Your task to perform on an android device: Show me popular videos on Youtube Image 0: 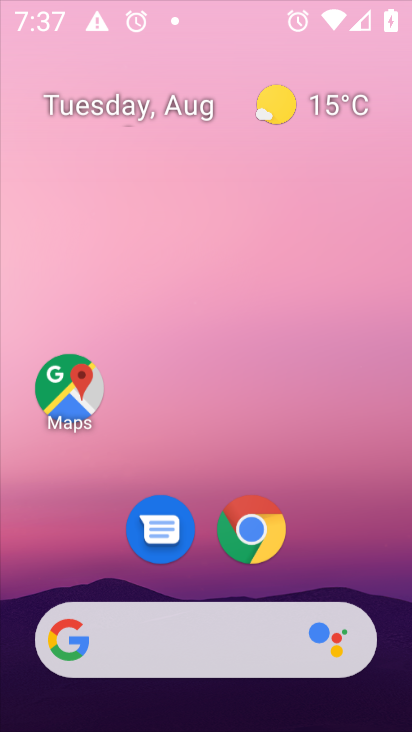
Step 0: press home button
Your task to perform on an android device: Show me popular videos on Youtube Image 1: 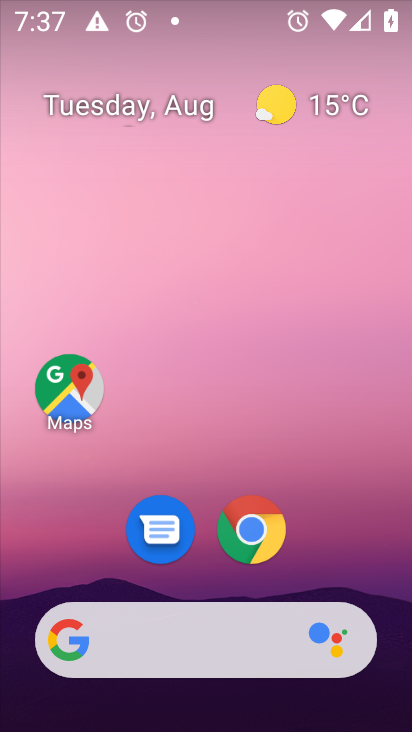
Step 1: drag from (208, 555) to (209, 97)
Your task to perform on an android device: Show me popular videos on Youtube Image 2: 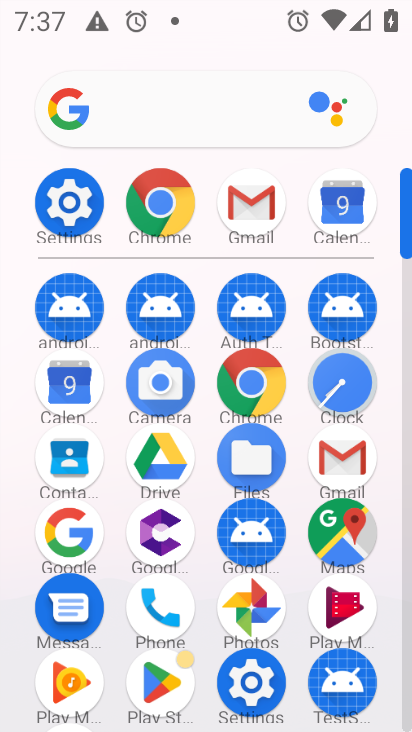
Step 2: drag from (383, 598) to (405, 79)
Your task to perform on an android device: Show me popular videos on Youtube Image 3: 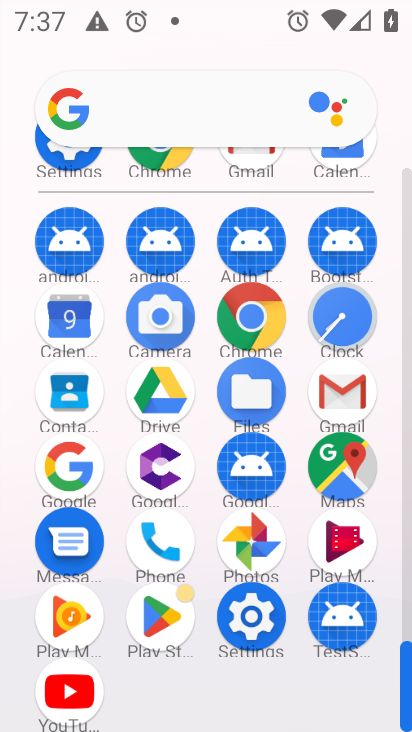
Step 3: click (78, 659)
Your task to perform on an android device: Show me popular videos on Youtube Image 4: 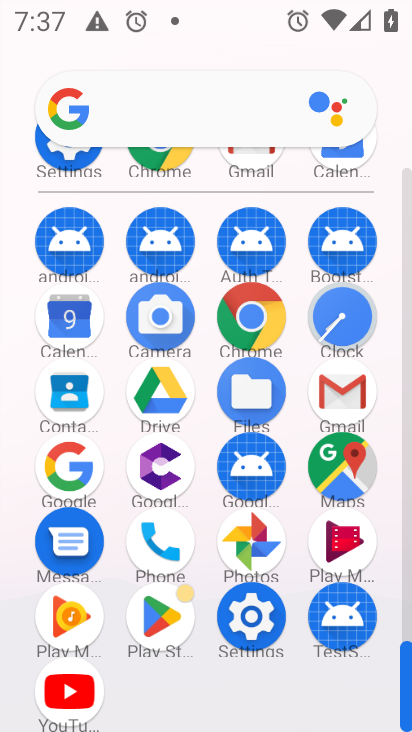
Step 4: click (62, 685)
Your task to perform on an android device: Show me popular videos on Youtube Image 5: 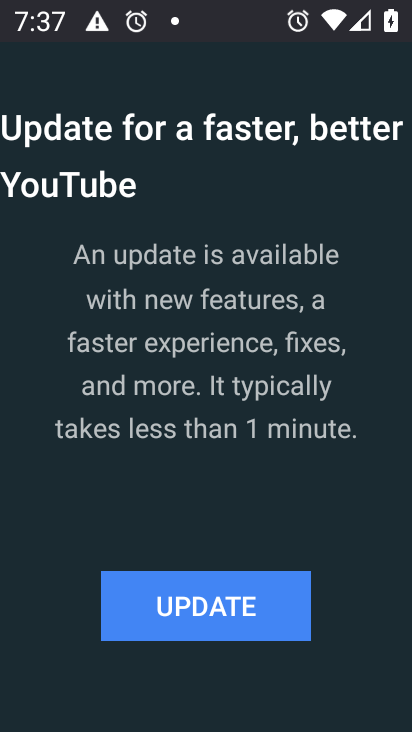
Step 5: click (205, 607)
Your task to perform on an android device: Show me popular videos on Youtube Image 6: 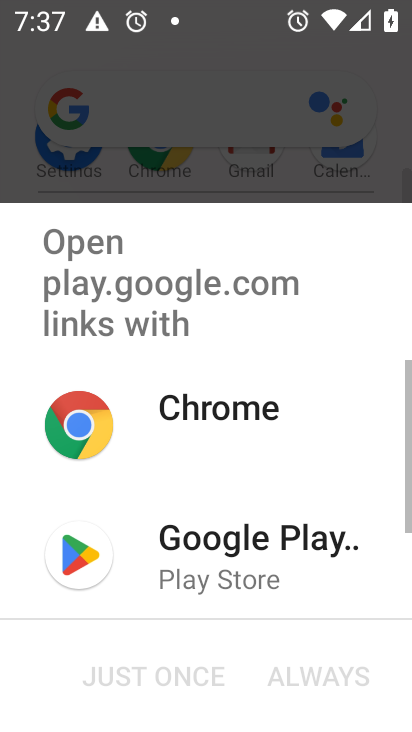
Step 6: click (212, 554)
Your task to perform on an android device: Show me popular videos on Youtube Image 7: 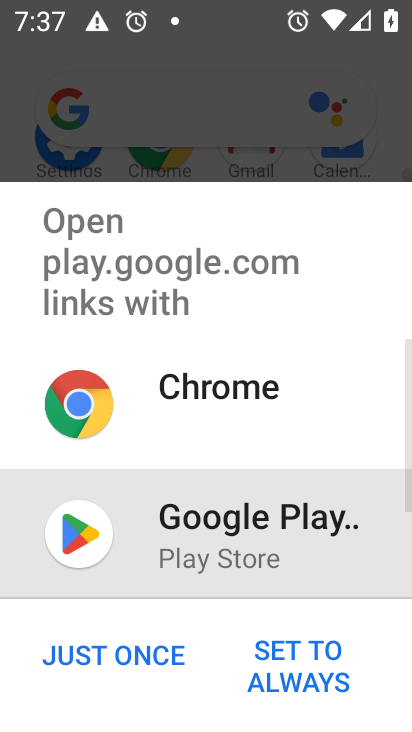
Step 7: click (117, 662)
Your task to perform on an android device: Show me popular videos on Youtube Image 8: 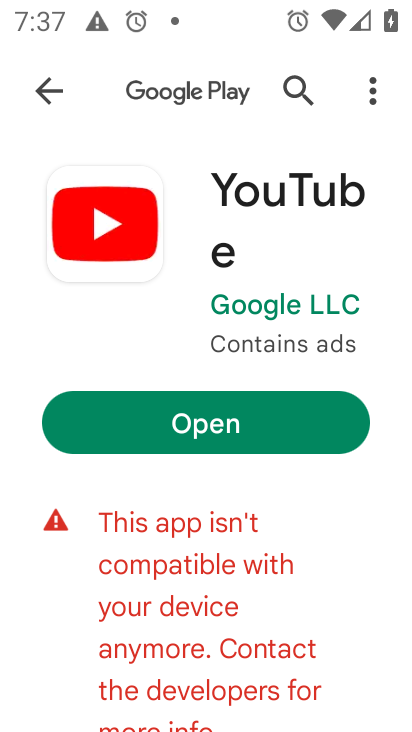
Step 8: click (146, 425)
Your task to perform on an android device: Show me popular videos on Youtube Image 9: 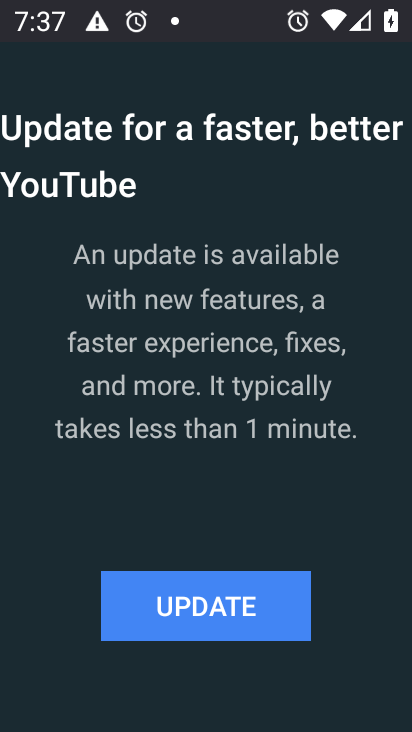
Step 9: click (183, 630)
Your task to perform on an android device: Show me popular videos on Youtube Image 10: 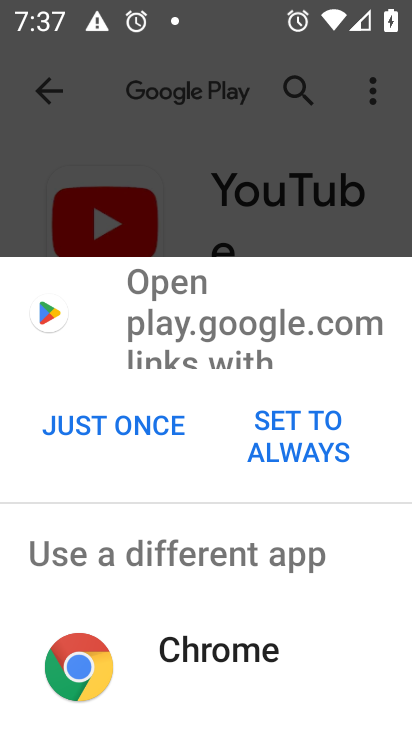
Step 10: click (139, 435)
Your task to perform on an android device: Show me popular videos on Youtube Image 11: 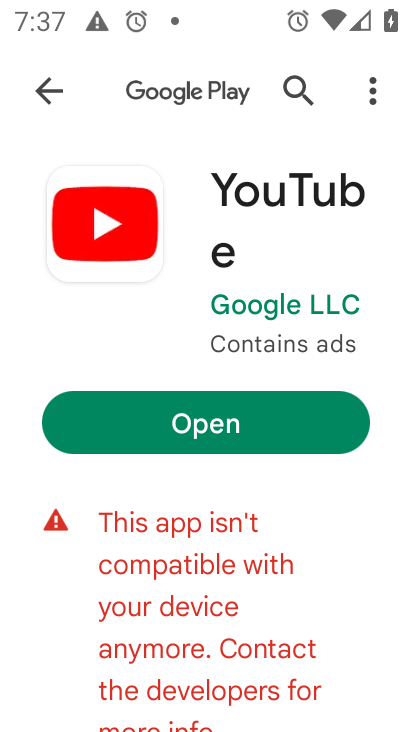
Step 11: task complete